Your task to perform on an android device: Do I have any events today? Image 0: 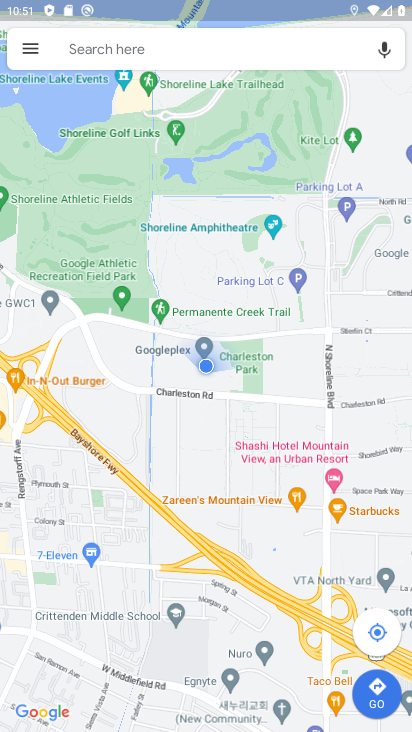
Step 0: press home button
Your task to perform on an android device: Do I have any events today? Image 1: 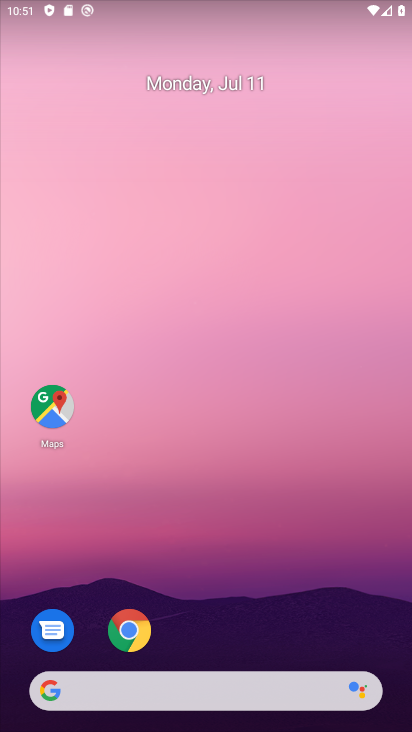
Step 1: drag from (207, 468) to (142, 103)
Your task to perform on an android device: Do I have any events today? Image 2: 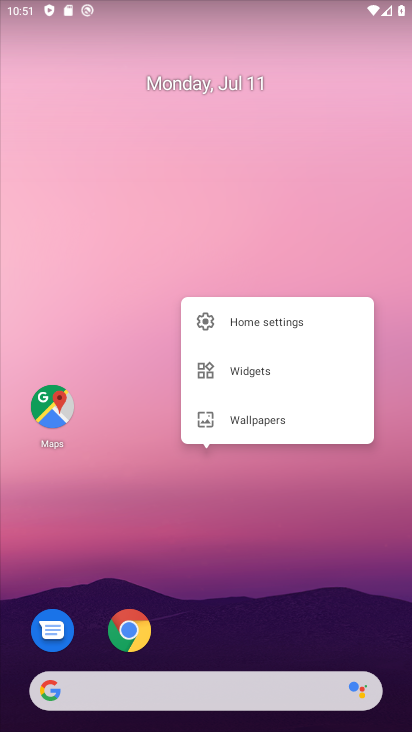
Step 2: drag from (302, 645) to (231, 244)
Your task to perform on an android device: Do I have any events today? Image 3: 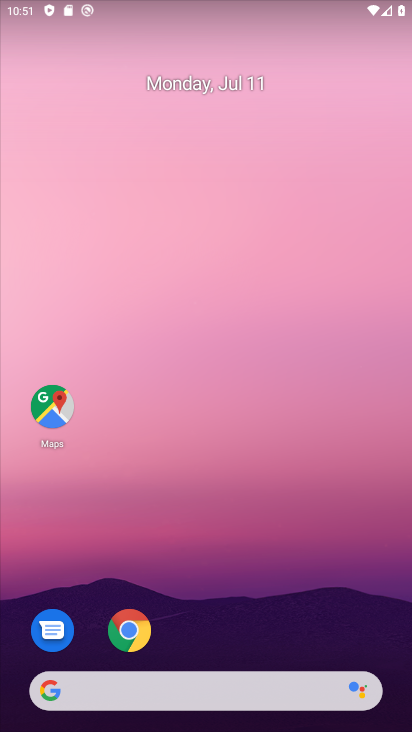
Step 3: drag from (401, 644) to (328, 153)
Your task to perform on an android device: Do I have any events today? Image 4: 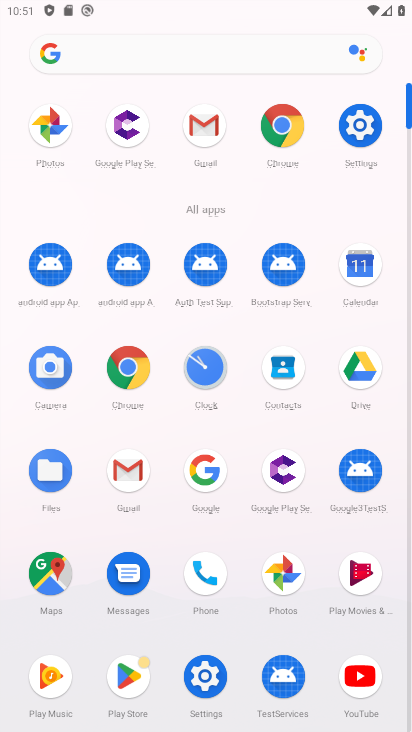
Step 4: click (356, 270)
Your task to perform on an android device: Do I have any events today? Image 5: 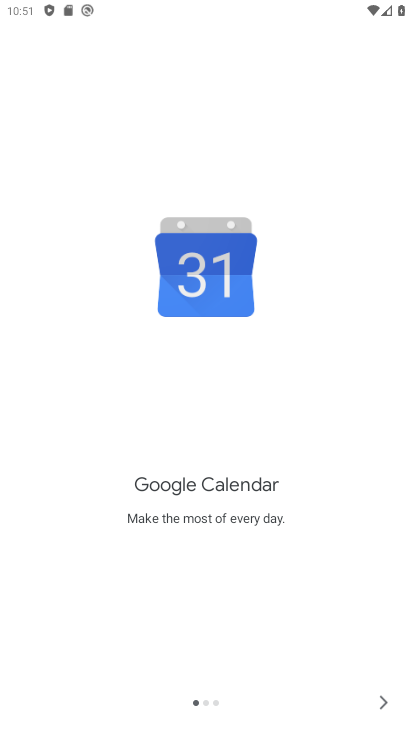
Step 5: click (379, 706)
Your task to perform on an android device: Do I have any events today? Image 6: 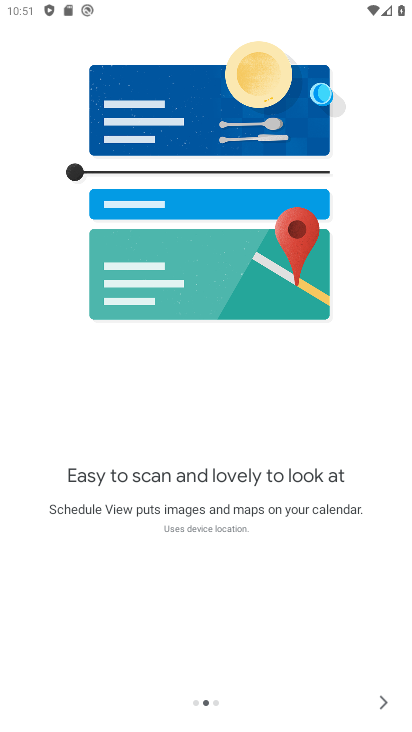
Step 6: click (379, 706)
Your task to perform on an android device: Do I have any events today? Image 7: 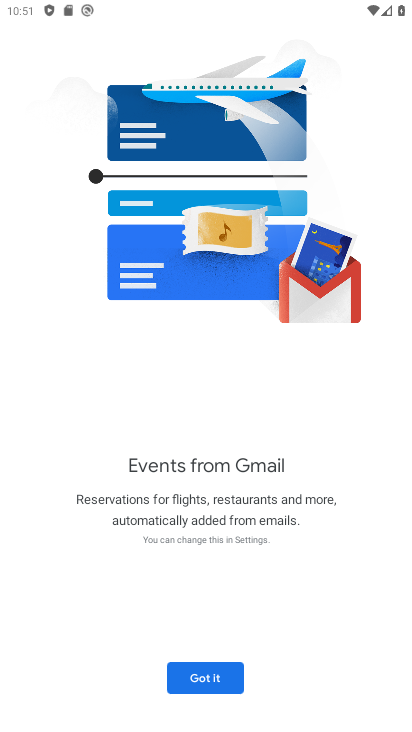
Step 7: click (211, 685)
Your task to perform on an android device: Do I have any events today? Image 8: 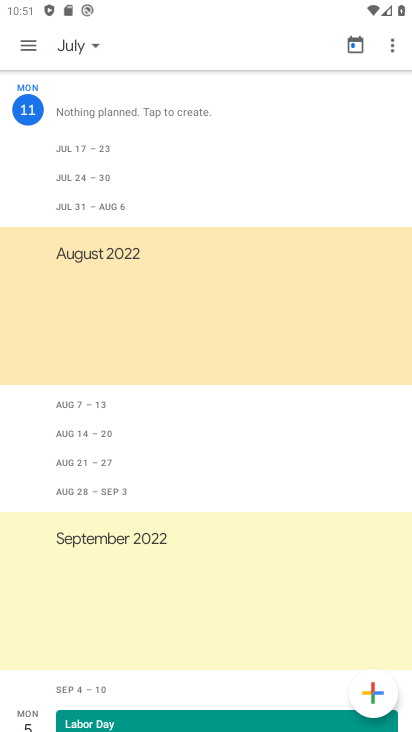
Step 8: click (28, 54)
Your task to perform on an android device: Do I have any events today? Image 9: 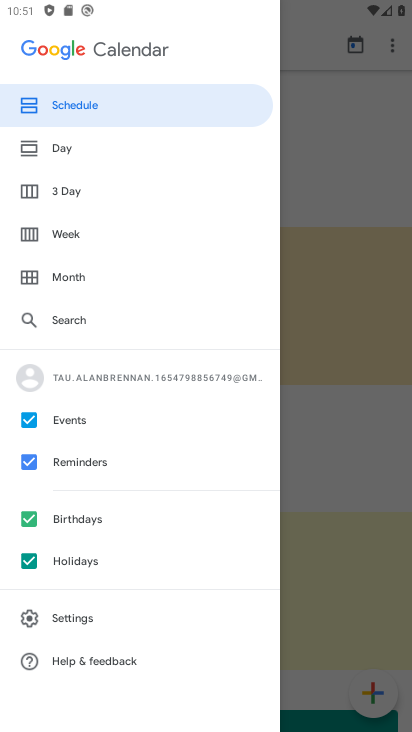
Step 9: click (35, 560)
Your task to perform on an android device: Do I have any events today? Image 10: 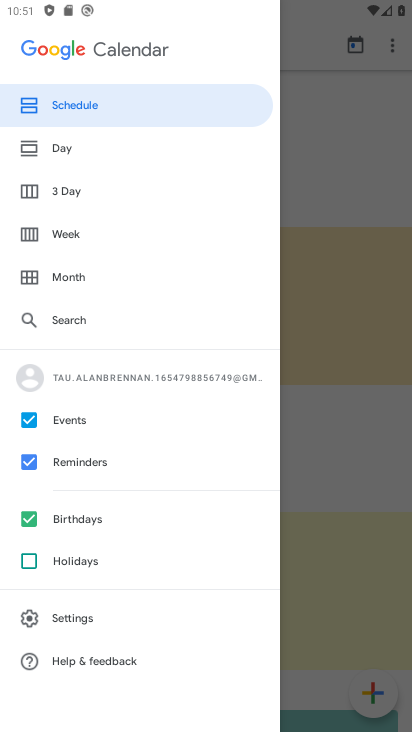
Step 10: click (25, 520)
Your task to perform on an android device: Do I have any events today? Image 11: 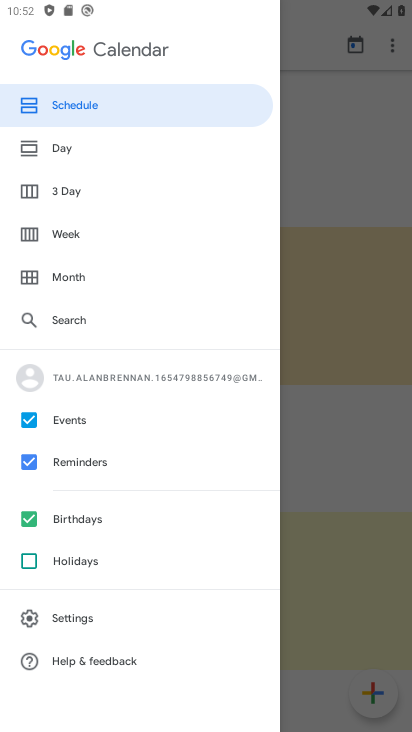
Step 11: click (25, 465)
Your task to perform on an android device: Do I have any events today? Image 12: 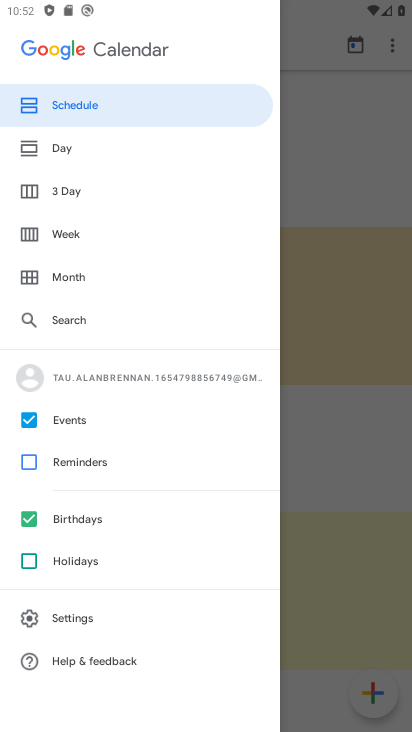
Step 12: click (28, 515)
Your task to perform on an android device: Do I have any events today? Image 13: 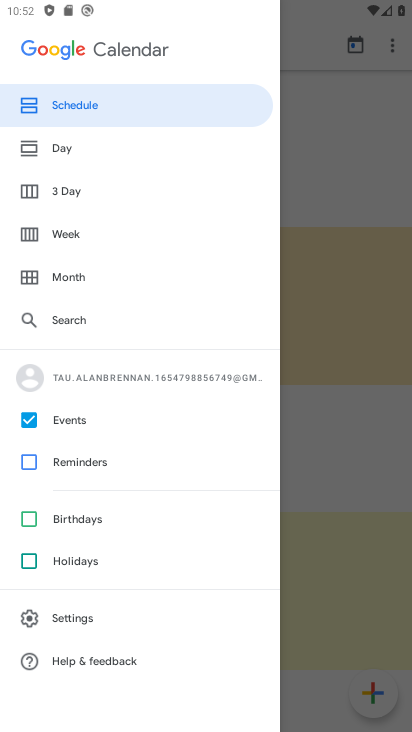
Step 13: click (77, 145)
Your task to perform on an android device: Do I have any events today? Image 14: 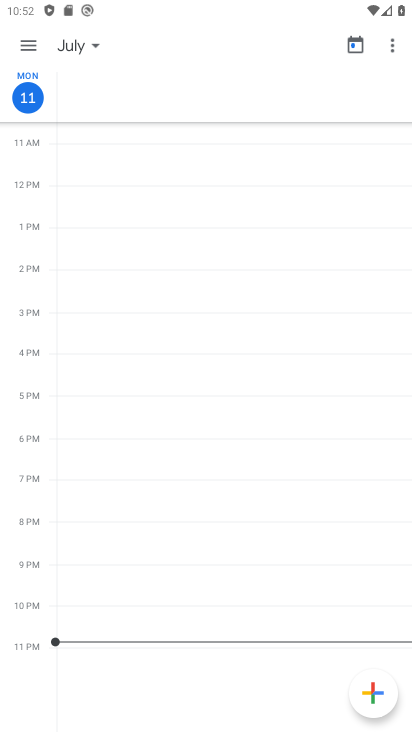
Step 14: task complete